Your task to perform on an android device: Open Reddit.com Image 0: 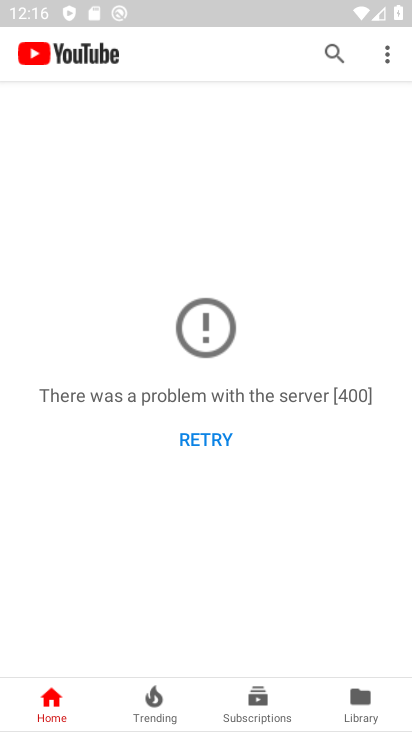
Step 0: press back button
Your task to perform on an android device: Open Reddit.com Image 1: 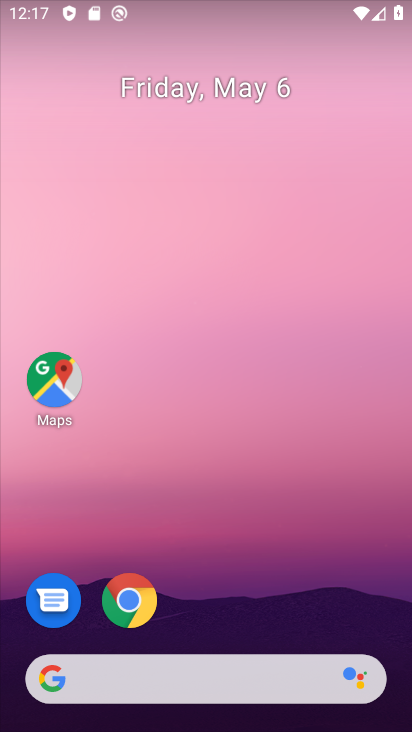
Step 1: click (124, 606)
Your task to perform on an android device: Open Reddit.com Image 2: 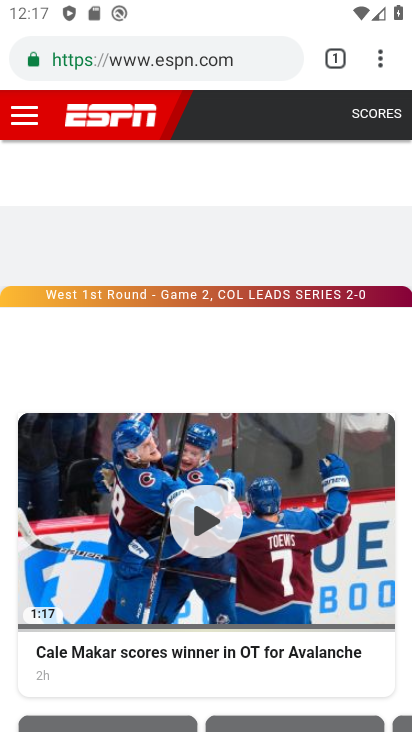
Step 2: click (245, 54)
Your task to perform on an android device: Open Reddit.com Image 3: 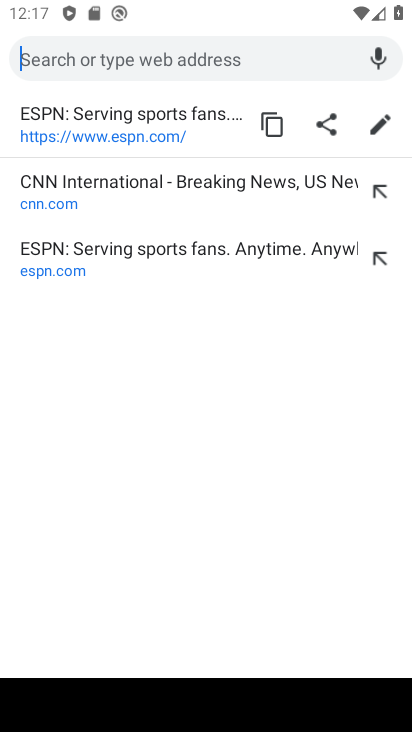
Step 3: type "Reddit.com"
Your task to perform on an android device: Open Reddit.com Image 4: 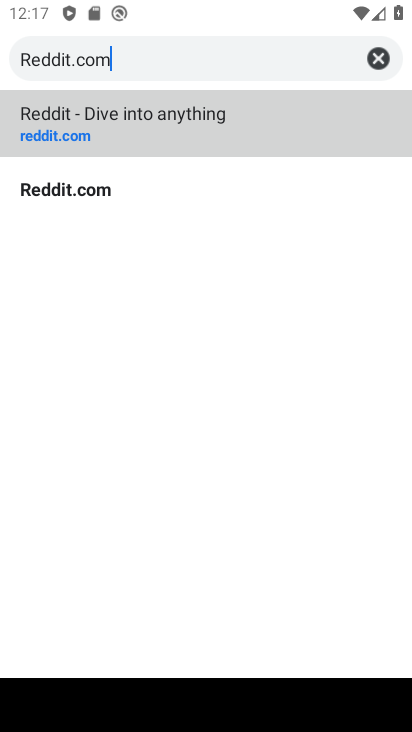
Step 4: click (121, 121)
Your task to perform on an android device: Open Reddit.com Image 5: 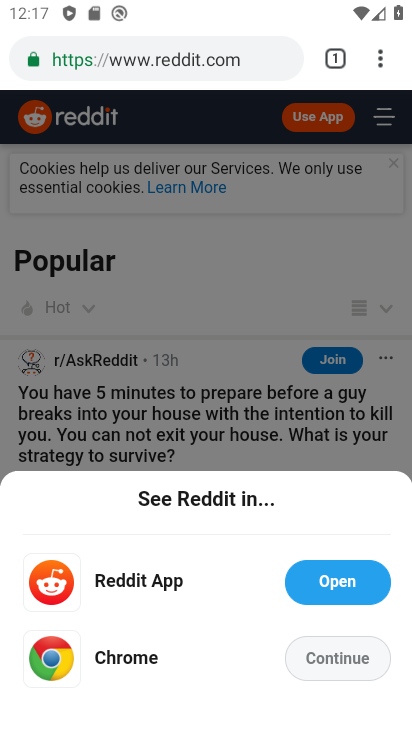
Step 5: click (343, 662)
Your task to perform on an android device: Open Reddit.com Image 6: 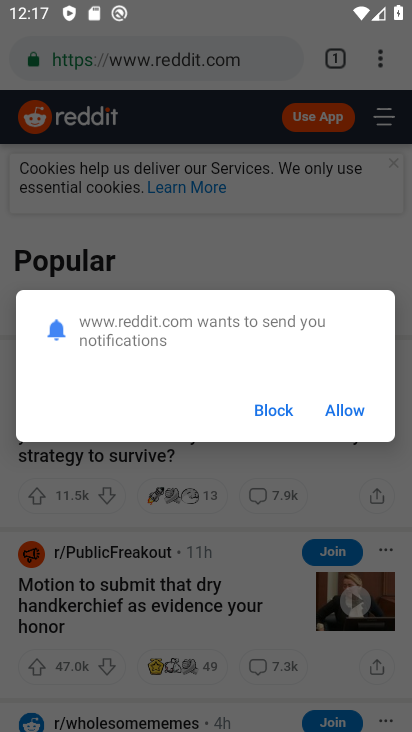
Step 6: click (345, 414)
Your task to perform on an android device: Open Reddit.com Image 7: 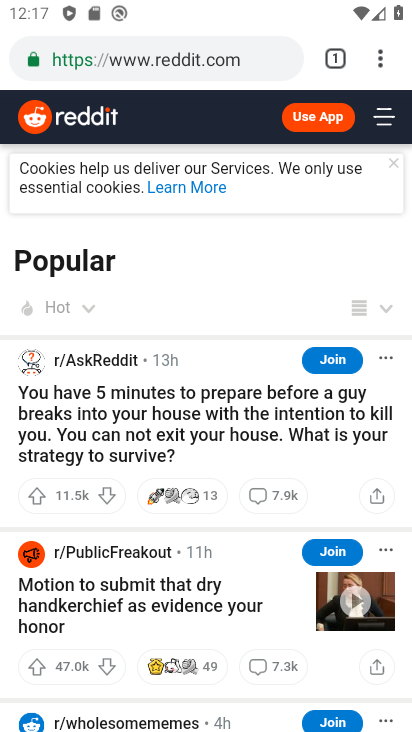
Step 7: task complete